Your task to perform on an android device: check data usage Image 0: 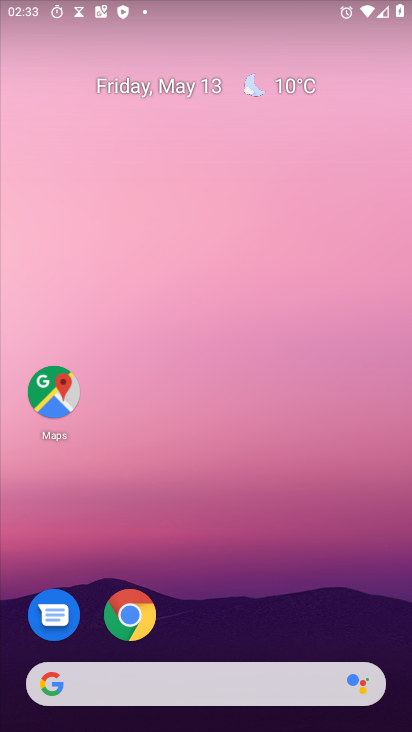
Step 0: drag from (178, 635) to (131, 235)
Your task to perform on an android device: check data usage Image 1: 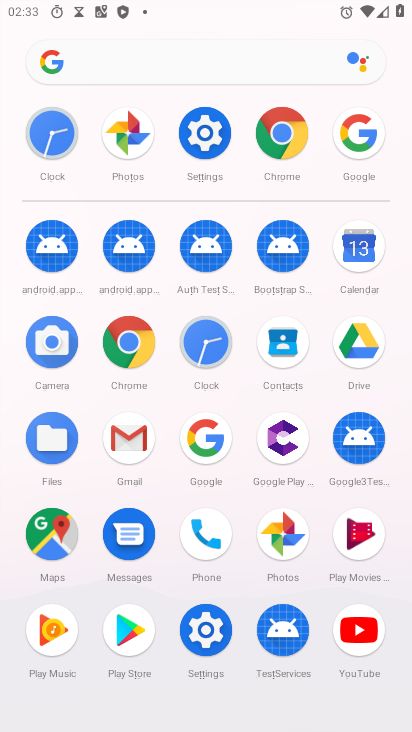
Step 1: click (210, 149)
Your task to perform on an android device: check data usage Image 2: 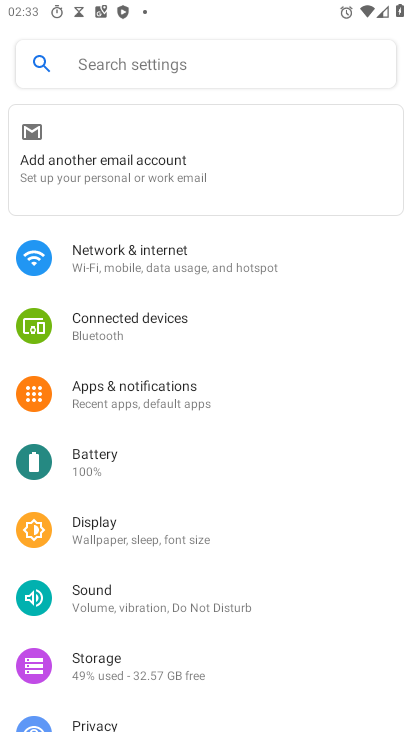
Step 2: click (176, 261)
Your task to perform on an android device: check data usage Image 3: 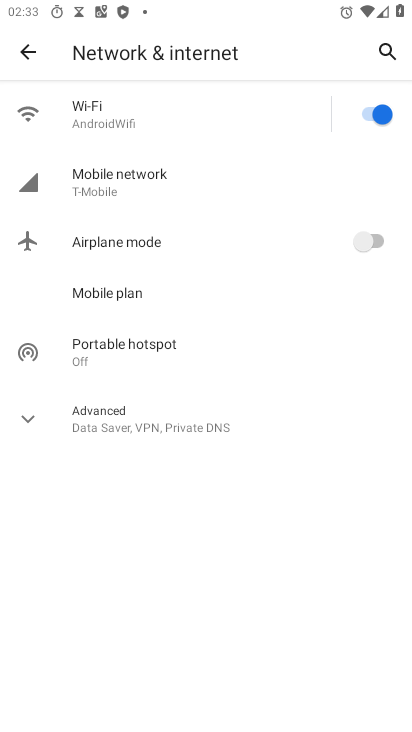
Step 3: click (149, 184)
Your task to perform on an android device: check data usage Image 4: 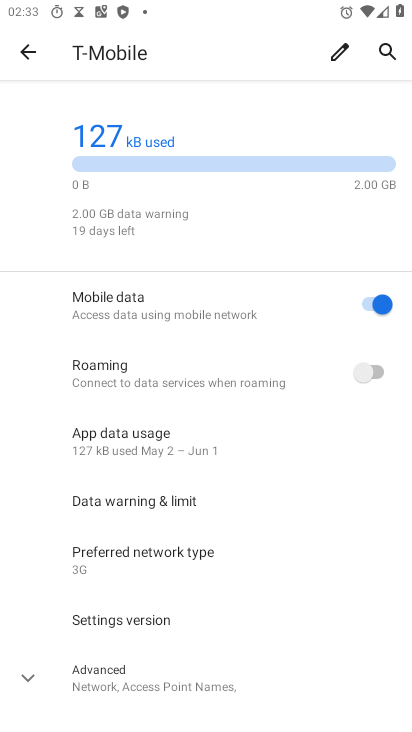
Step 4: task complete